Your task to perform on an android device: empty trash in google photos Image 0: 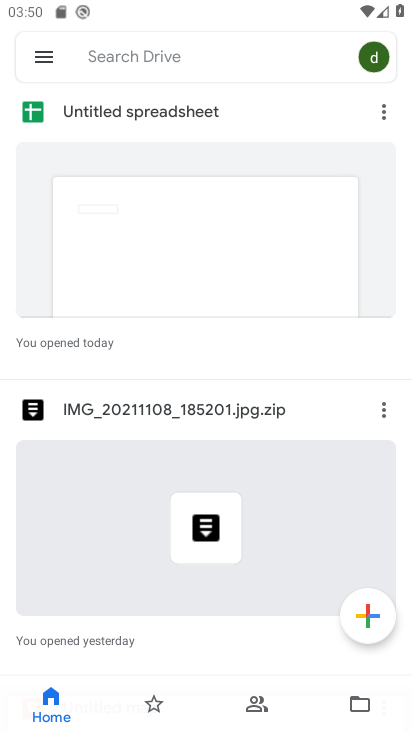
Step 0: press home button
Your task to perform on an android device: empty trash in google photos Image 1: 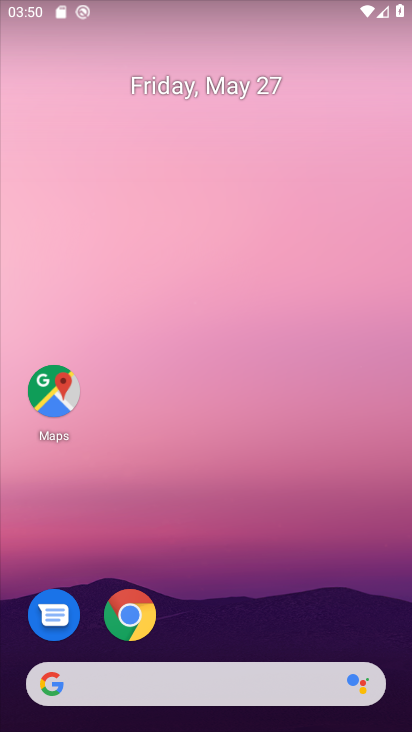
Step 1: drag from (87, 731) to (80, 113)
Your task to perform on an android device: empty trash in google photos Image 2: 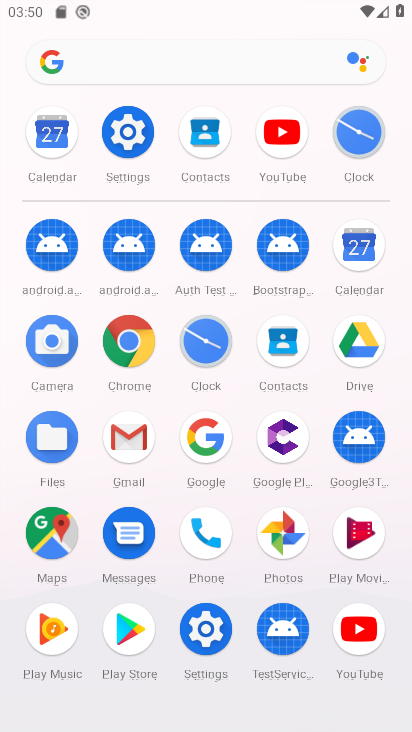
Step 2: click (133, 449)
Your task to perform on an android device: empty trash in google photos Image 3: 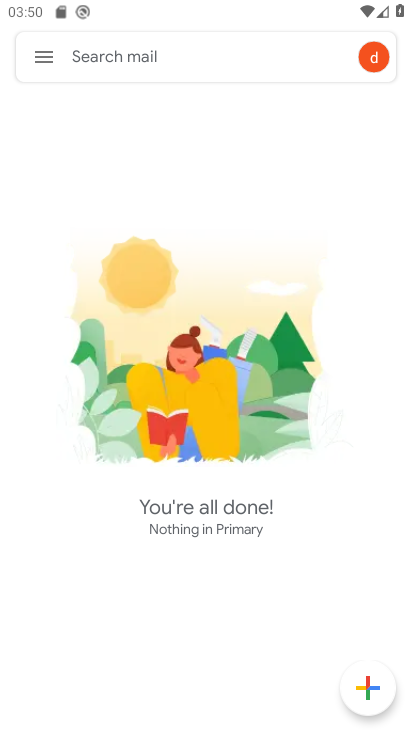
Step 3: click (40, 56)
Your task to perform on an android device: empty trash in google photos Image 4: 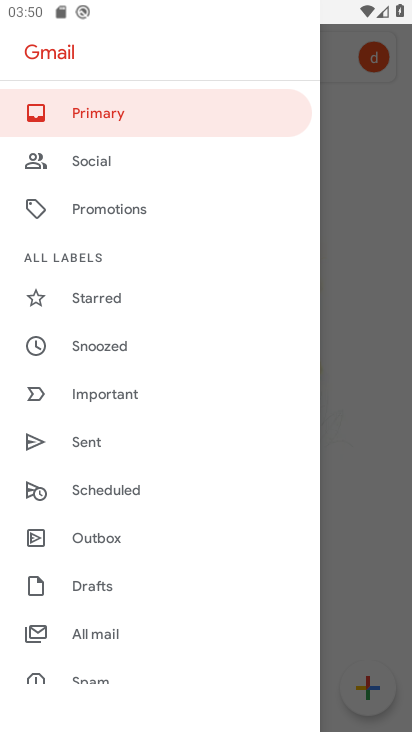
Step 4: drag from (202, 661) to (213, 182)
Your task to perform on an android device: empty trash in google photos Image 5: 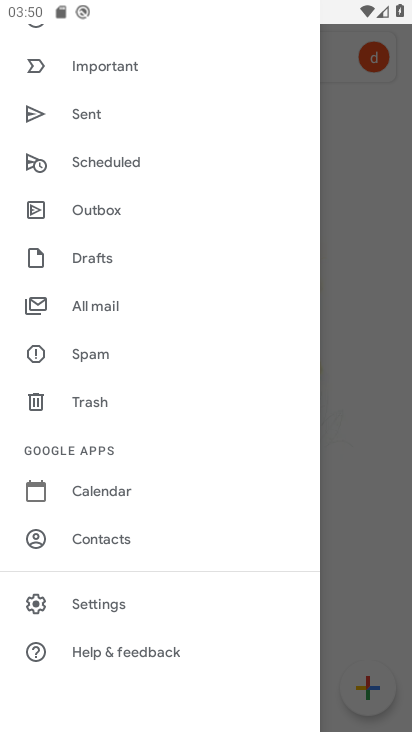
Step 5: click (79, 410)
Your task to perform on an android device: empty trash in google photos Image 6: 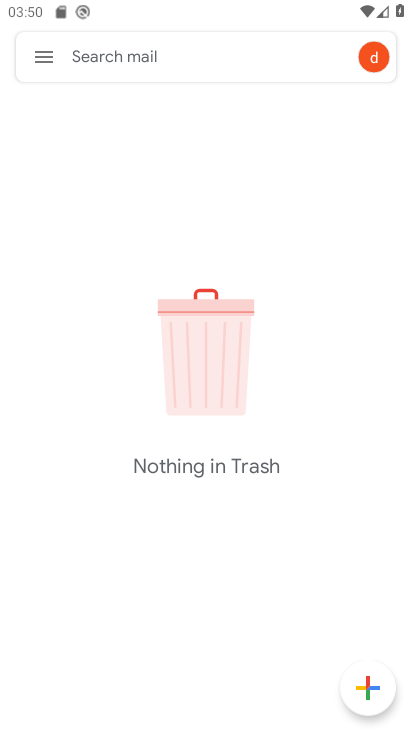
Step 6: task complete